Your task to perform on an android device: delete location history Image 0: 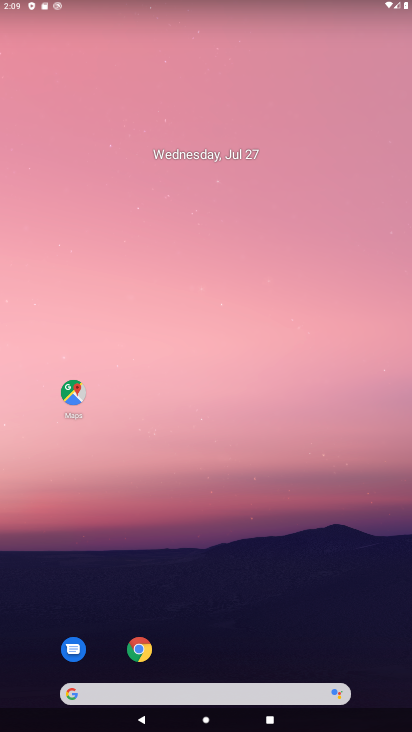
Step 0: drag from (365, 628) to (119, 66)
Your task to perform on an android device: delete location history Image 1: 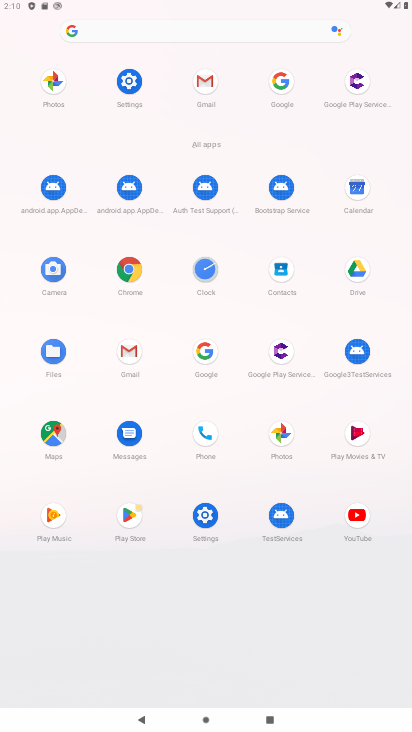
Step 1: click (203, 515)
Your task to perform on an android device: delete location history Image 2: 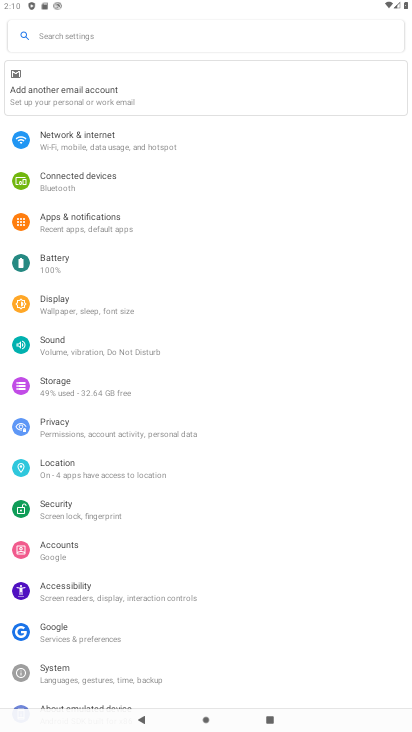
Step 2: click (39, 468)
Your task to perform on an android device: delete location history Image 3: 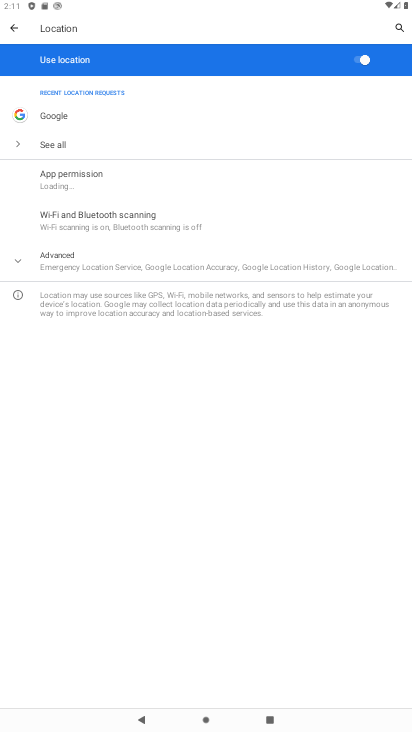
Step 3: click (33, 266)
Your task to perform on an android device: delete location history Image 4: 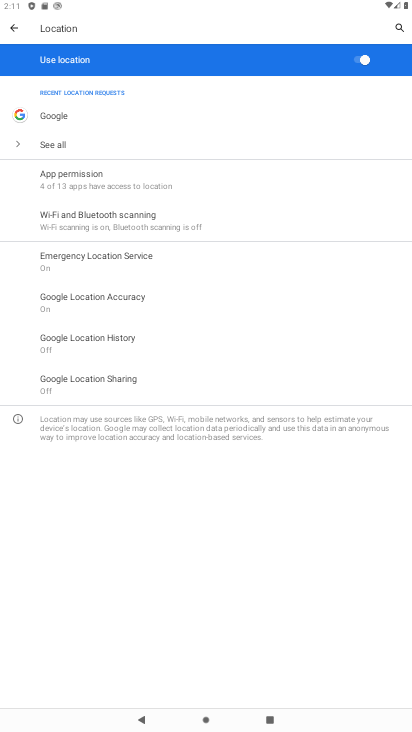
Step 4: click (126, 342)
Your task to perform on an android device: delete location history Image 5: 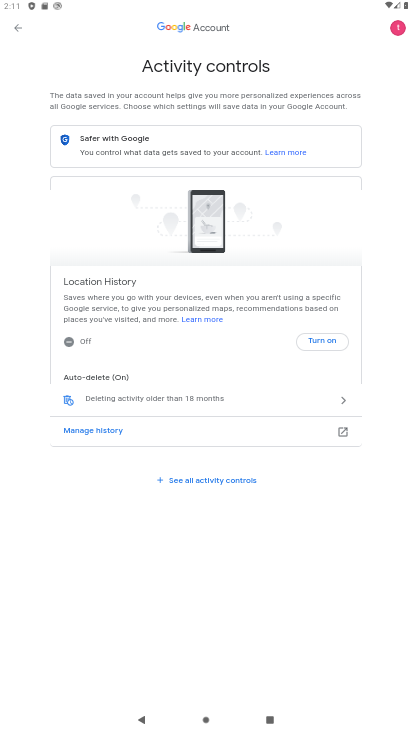
Step 5: click (129, 400)
Your task to perform on an android device: delete location history Image 6: 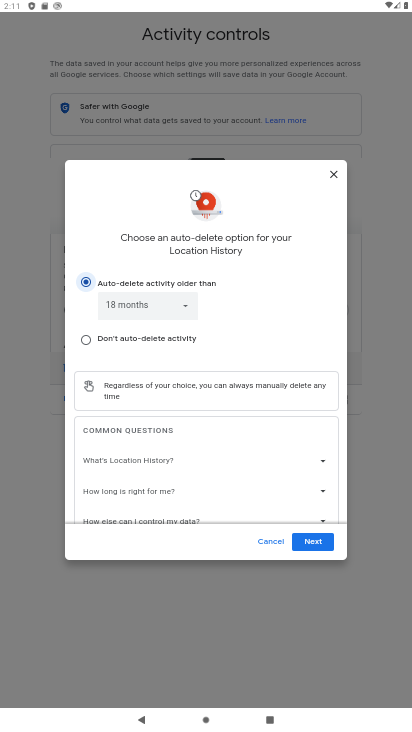
Step 6: click (306, 545)
Your task to perform on an android device: delete location history Image 7: 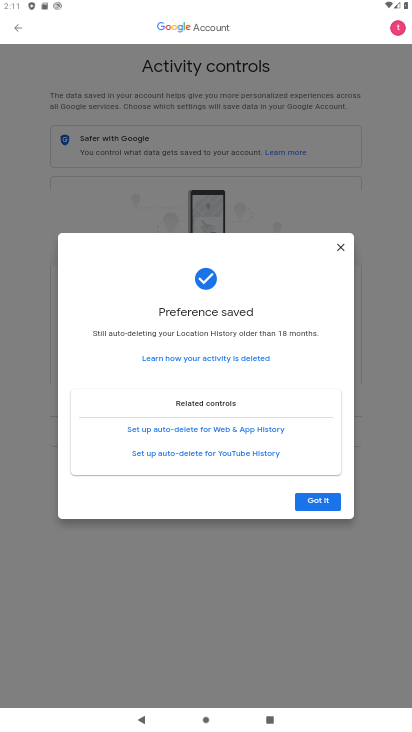
Step 7: click (317, 494)
Your task to perform on an android device: delete location history Image 8: 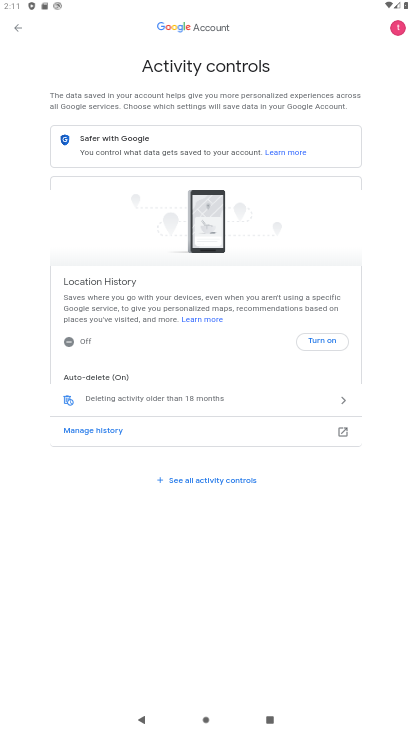
Step 8: task complete